Your task to perform on an android device: toggle wifi Image 0: 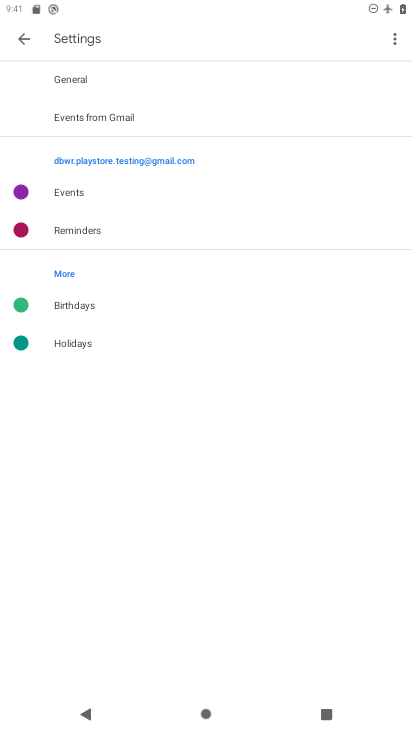
Step 0: press home button
Your task to perform on an android device: toggle wifi Image 1: 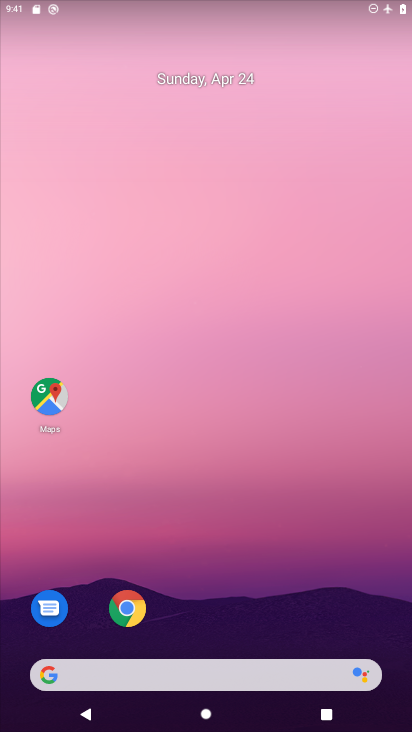
Step 1: drag from (212, 628) to (215, 150)
Your task to perform on an android device: toggle wifi Image 2: 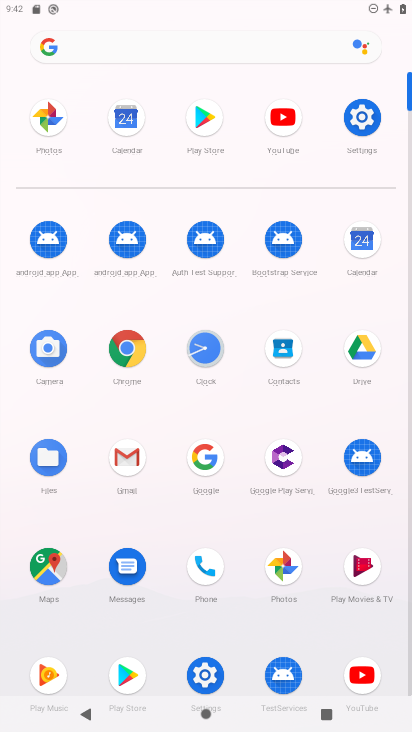
Step 2: click (346, 123)
Your task to perform on an android device: toggle wifi Image 3: 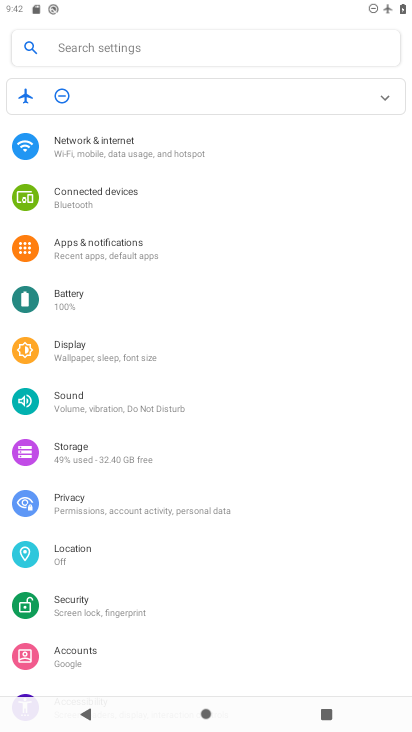
Step 3: click (218, 135)
Your task to perform on an android device: toggle wifi Image 4: 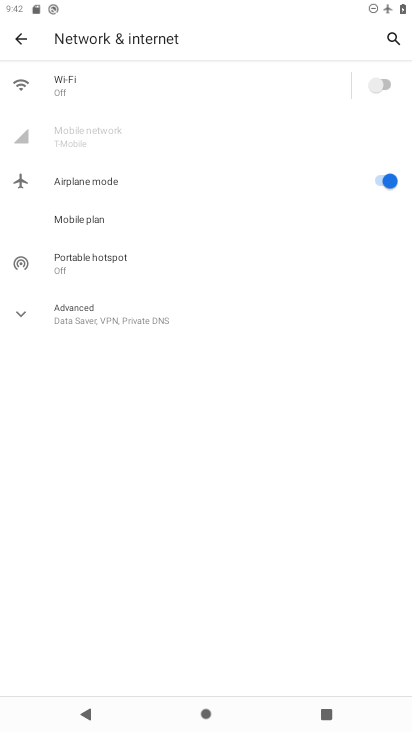
Step 4: click (383, 90)
Your task to perform on an android device: toggle wifi Image 5: 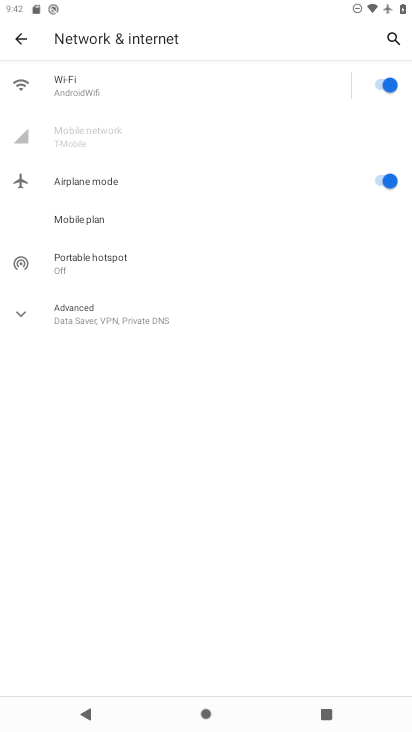
Step 5: task complete